Your task to perform on an android device: When is my next appointment? Image 0: 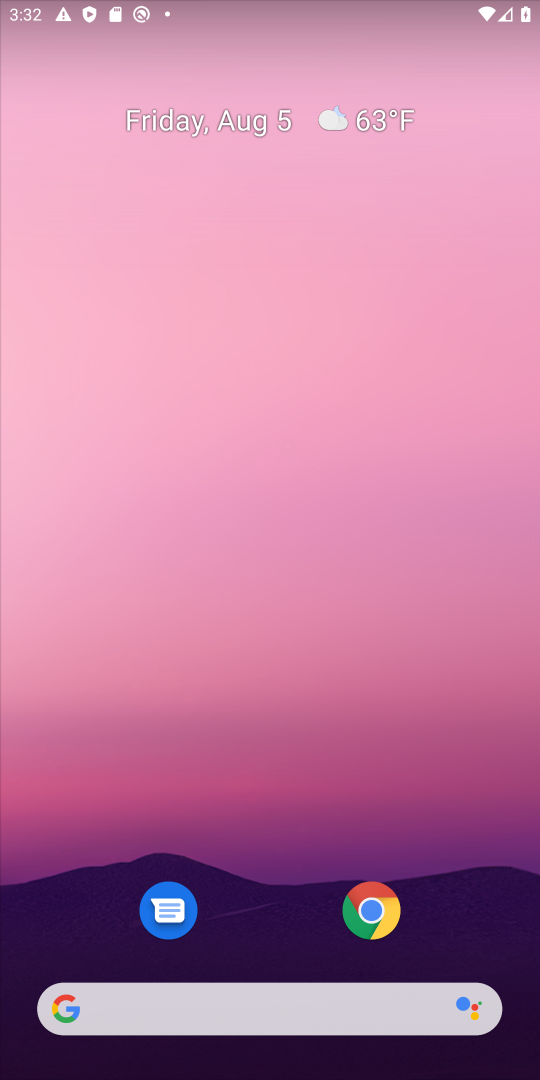
Step 0: drag from (445, 682) to (364, 390)
Your task to perform on an android device: When is my next appointment? Image 1: 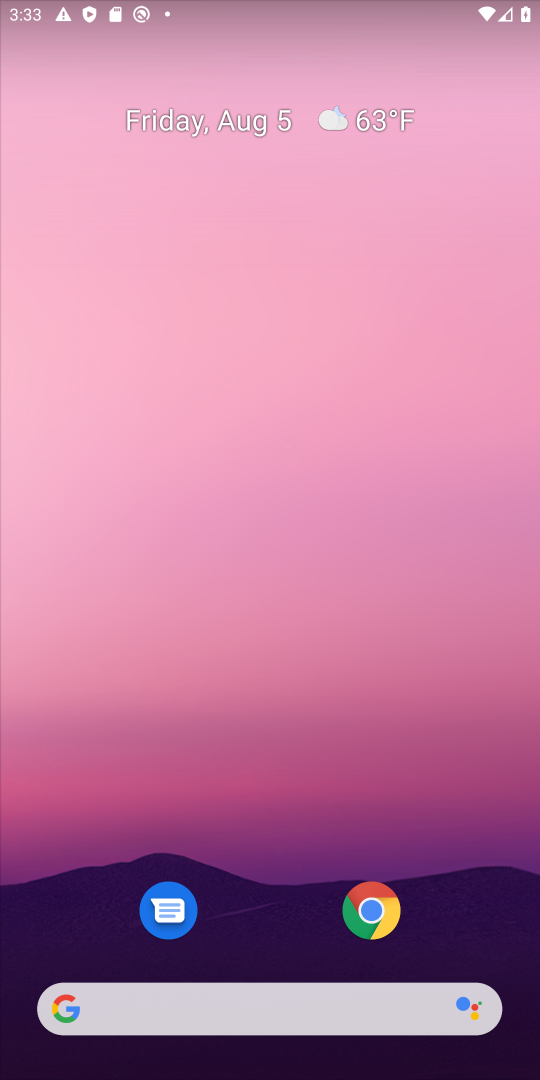
Step 1: drag from (481, 926) to (318, 282)
Your task to perform on an android device: When is my next appointment? Image 2: 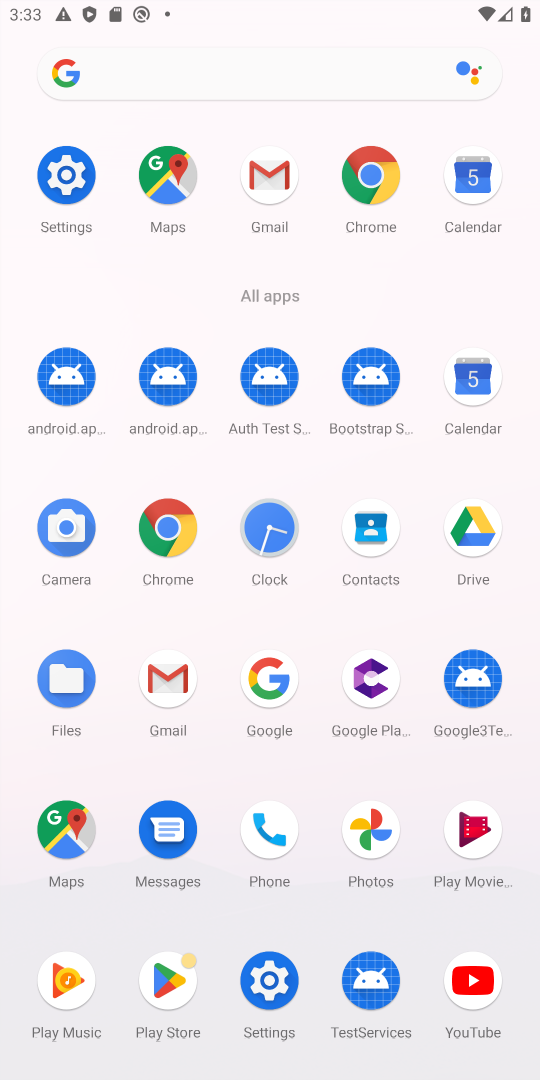
Step 2: click (485, 365)
Your task to perform on an android device: When is my next appointment? Image 3: 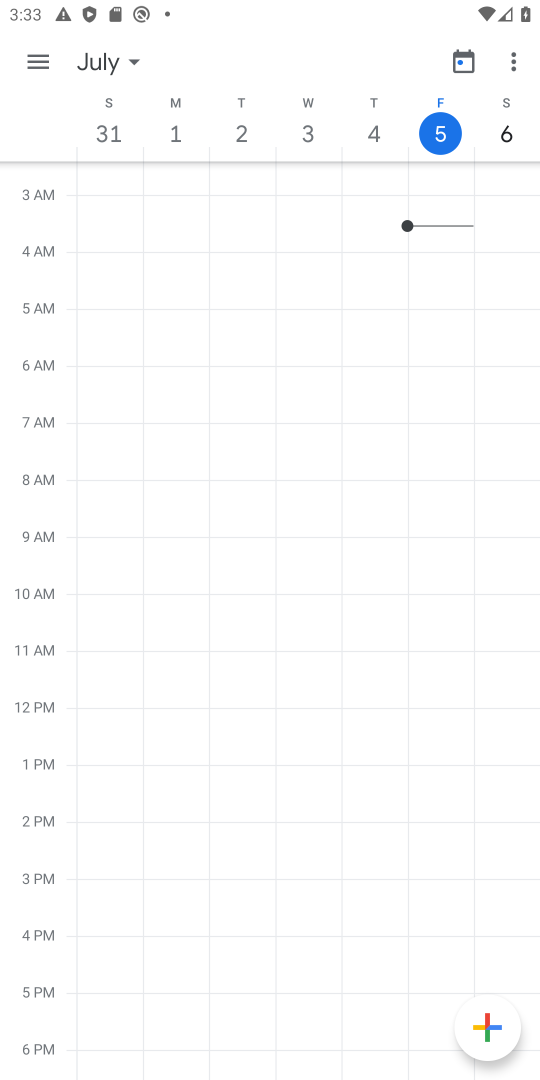
Step 3: click (51, 73)
Your task to perform on an android device: When is my next appointment? Image 4: 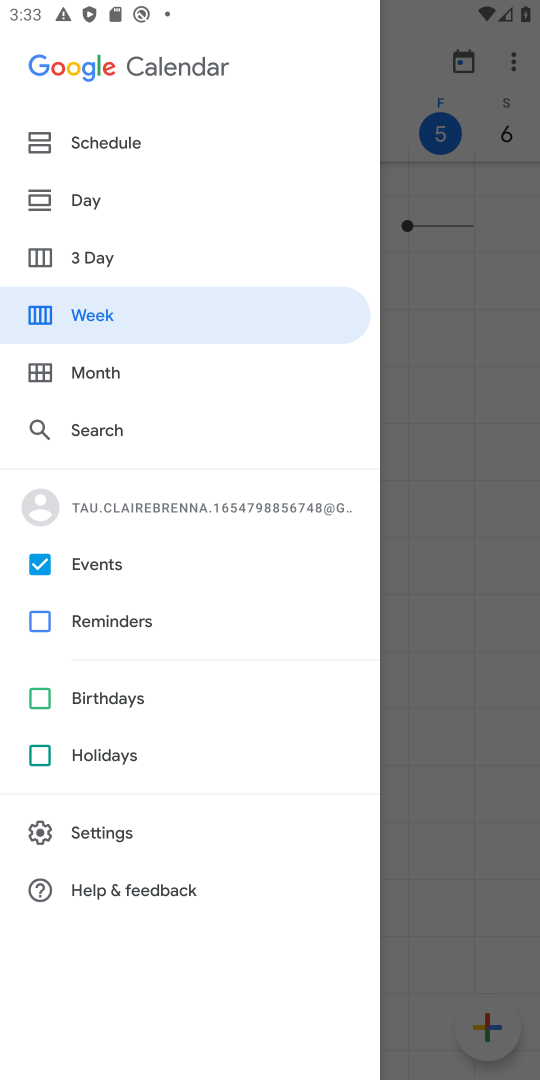
Step 4: click (85, 151)
Your task to perform on an android device: When is my next appointment? Image 5: 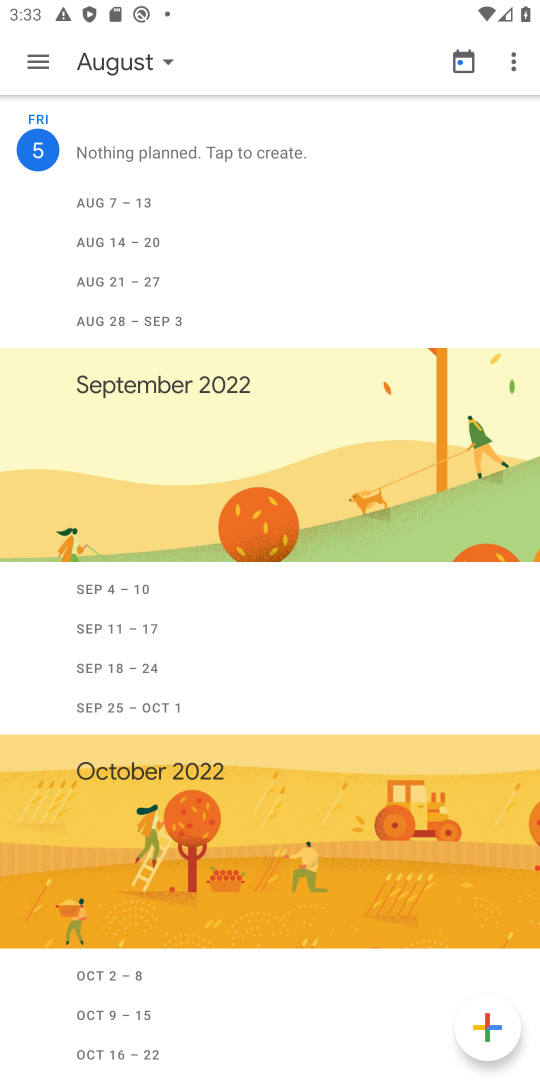
Step 5: task complete